Your task to perform on an android device: turn off location Image 0: 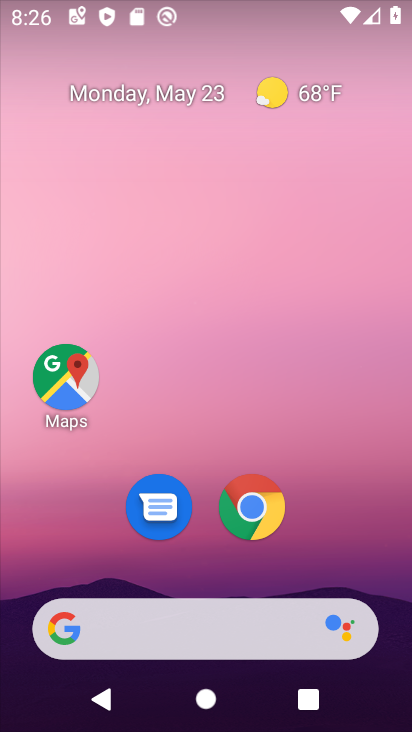
Step 0: drag from (197, 585) to (221, 191)
Your task to perform on an android device: turn off location Image 1: 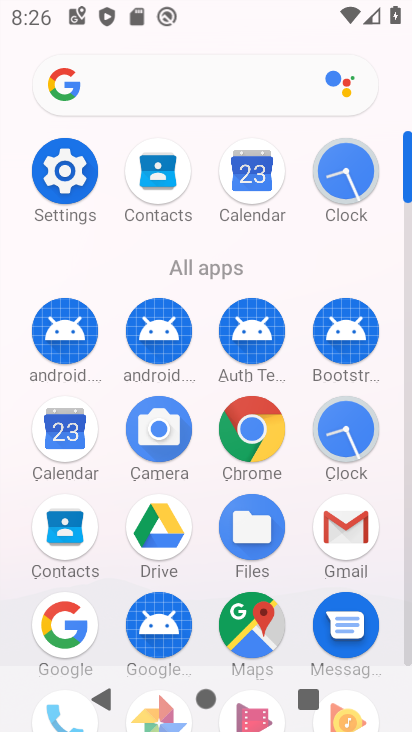
Step 1: click (74, 166)
Your task to perform on an android device: turn off location Image 2: 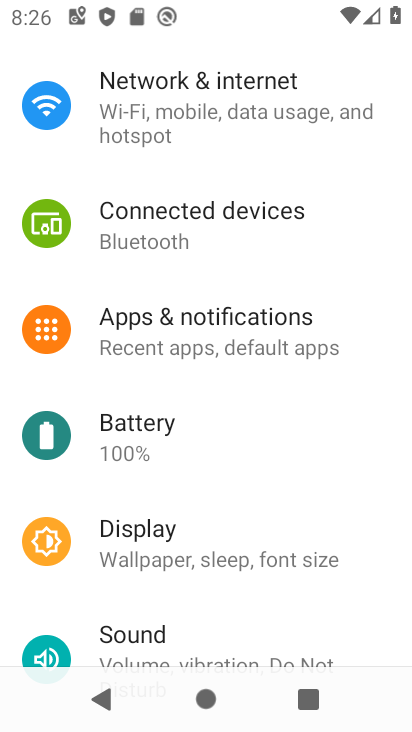
Step 2: drag from (150, 629) to (183, 415)
Your task to perform on an android device: turn off location Image 3: 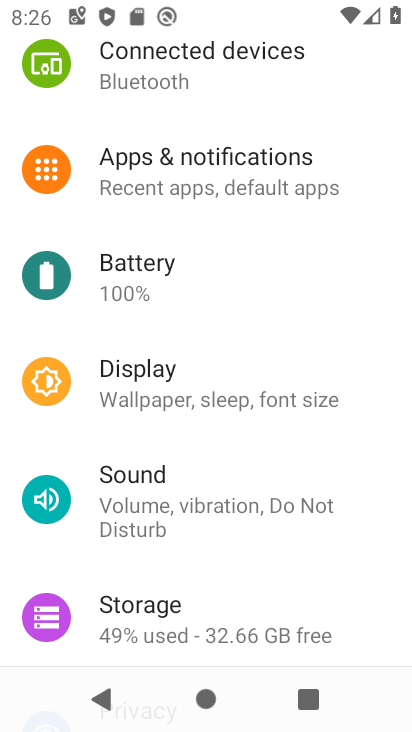
Step 3: drag from (217, 644) to (247, 182)
Your task to perform on an android device: turn off location Image 4: 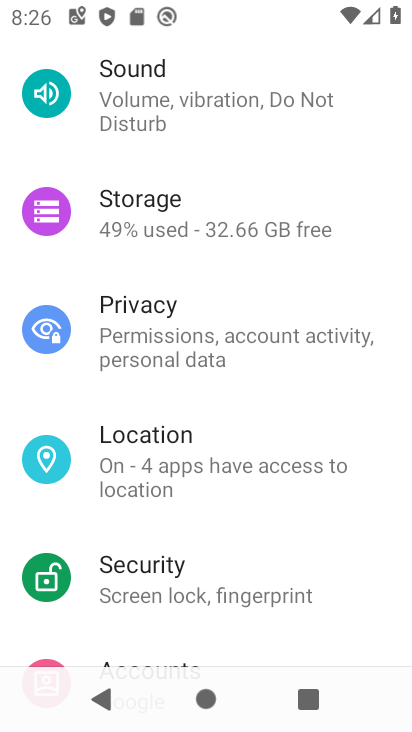
Step 4: click (164, 463)
Your task to perform on an android device: turn off location Image 5: 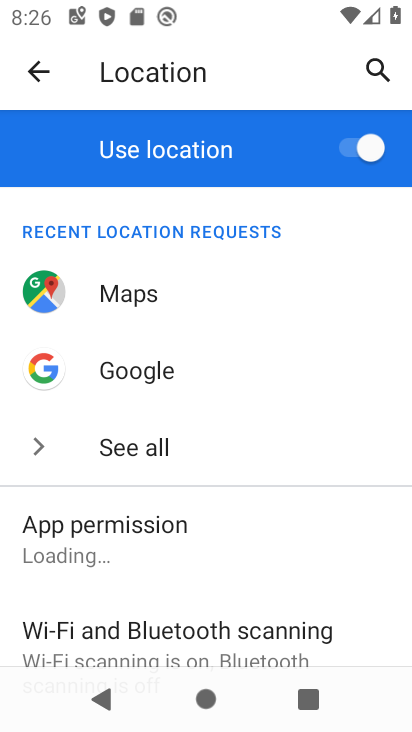
Step 5: click (350, 151)
Your task to perform on an android device: turn off location Image 6: 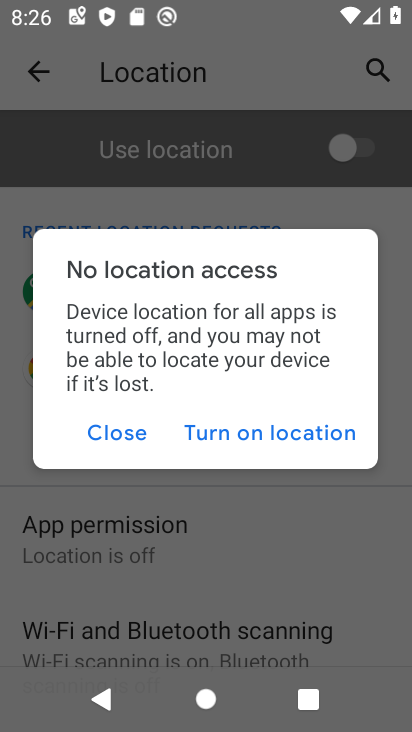
Step 6: task complete